Your task to perform on an android device: change text size in settings app Image 0: 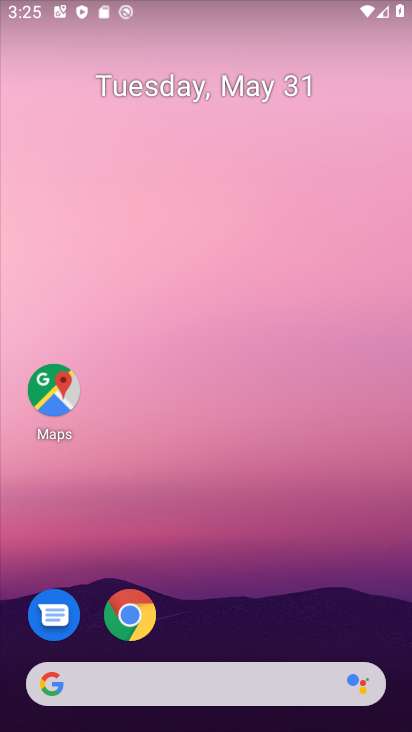
Step 0: drag from (224, 616) to (148, 92)
Your task to perform on an android device: change text size in settings app Image 1: 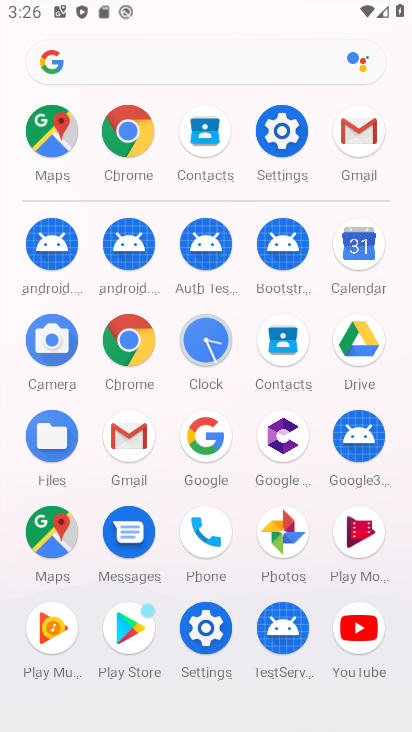
Step 1: click (276, 125)
Your task to perform on an android device: change text size in settings app Image 2: 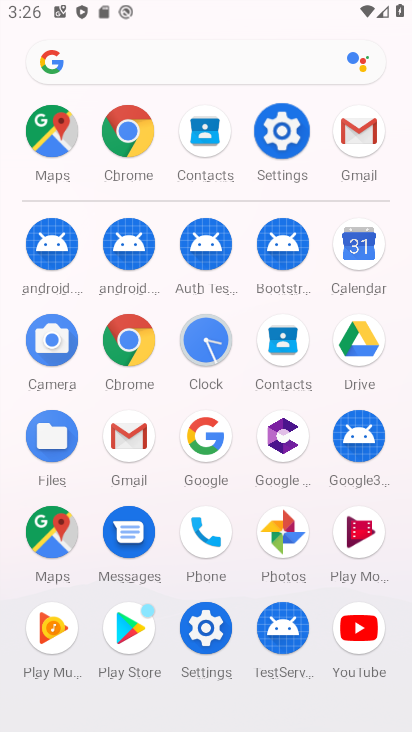
Step 2: click (276, 125)
Your task to perform on an android device: change text size in settings app Image 3: 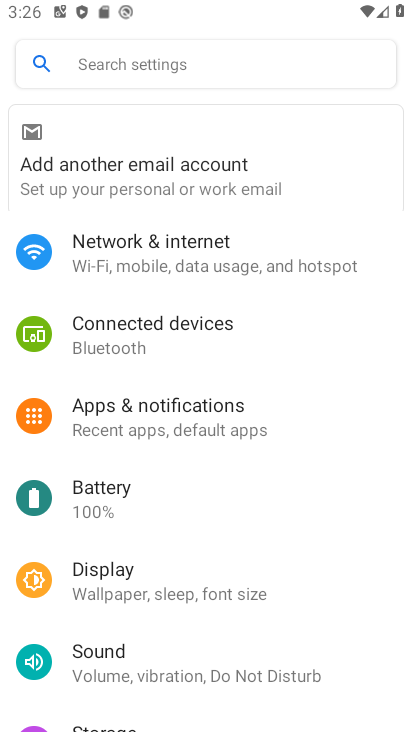
Step 3: click (276, 125)
Your task to perform on an android device: change text size in settings app Image 4: 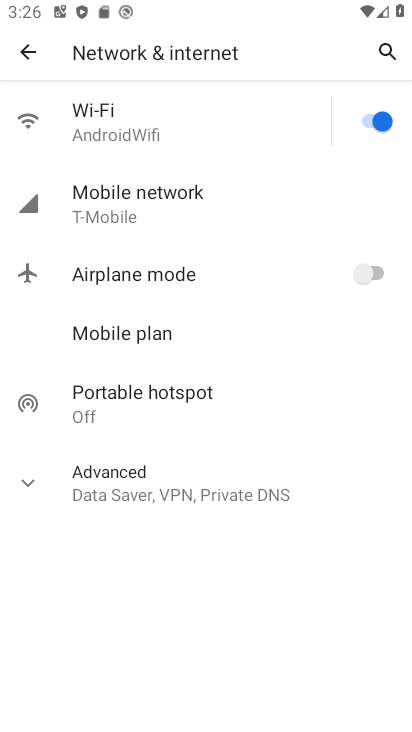
Step 4: click (22, 44)
Your task to perform on an android device: change text size in settings app Image 5: 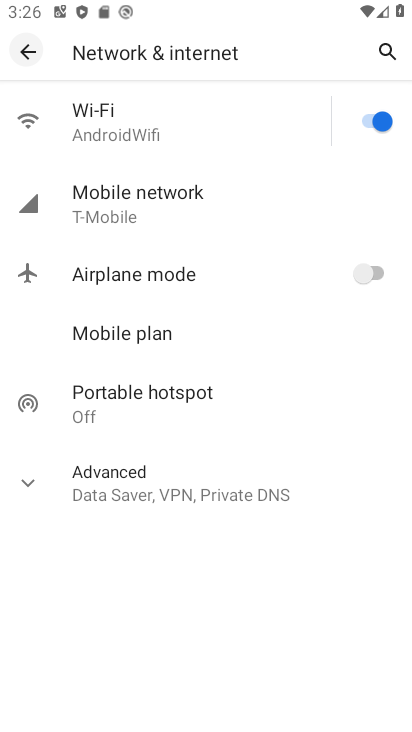
Step 5: click (22, 44)
Your task to perform on an android device: change text size in settings app Image 6: 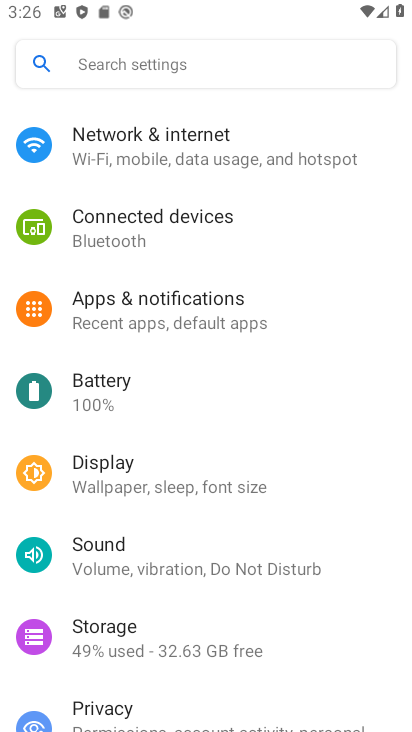
Step 6: click (22, 44)
Your task to perform on an android device: change text size in settings app Image 7: 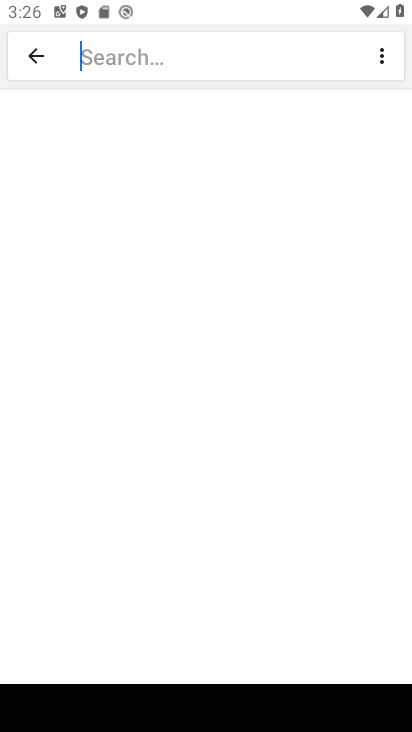
Step 7: click (38, 56)
Your task to perform on an android device: change text size in settings app Image 8: 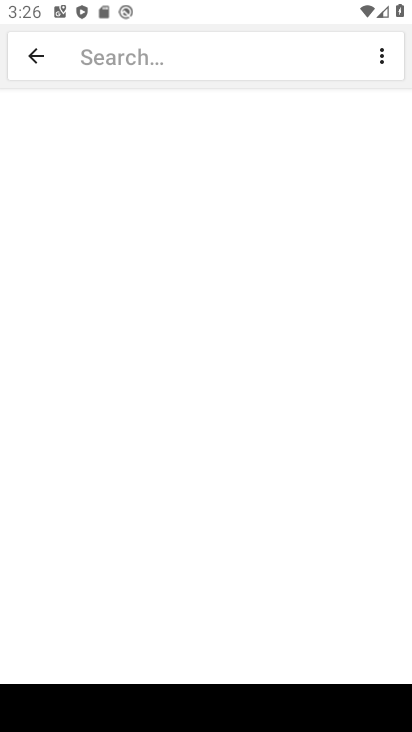
Step 8: click (37, 57)
Your task to perform on an android device: change text size in settings app Image 9: 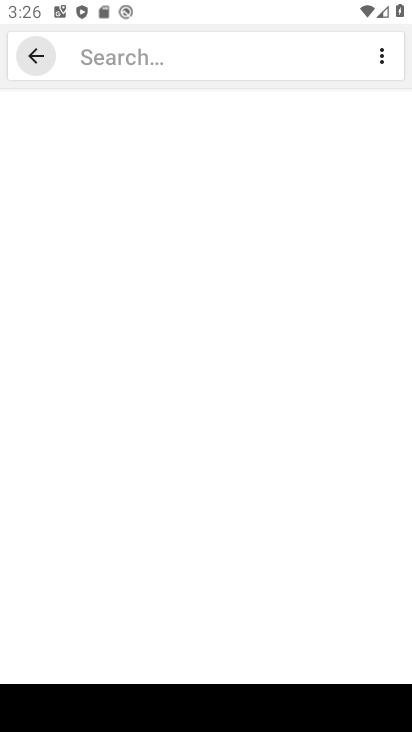
Step 9: click (38, 58)
Your task to perform on an android device: change text size in settings app Image 10: 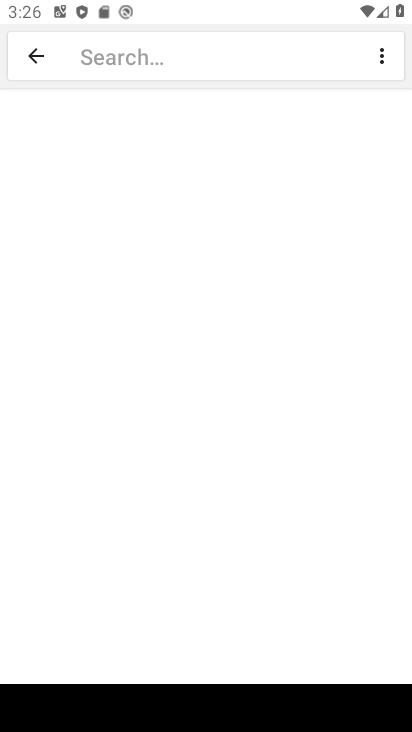
Step 10: click (27, 54)
Your task to perform on an android device: change text size in settings app Image 11: 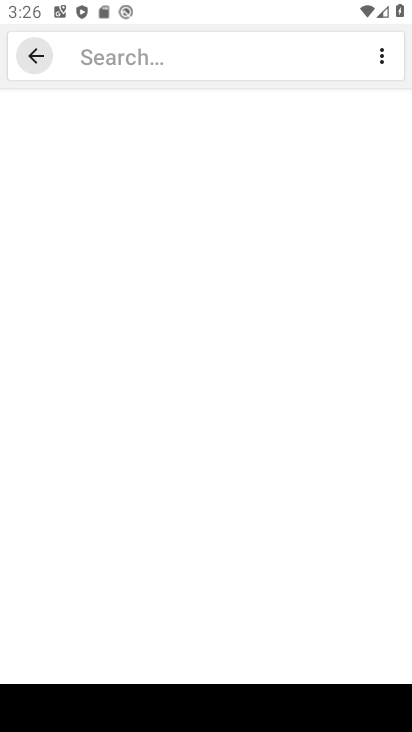
Step 11: click (29, 53)
Your task to perform on an android device: change text size in settings app Image 12: 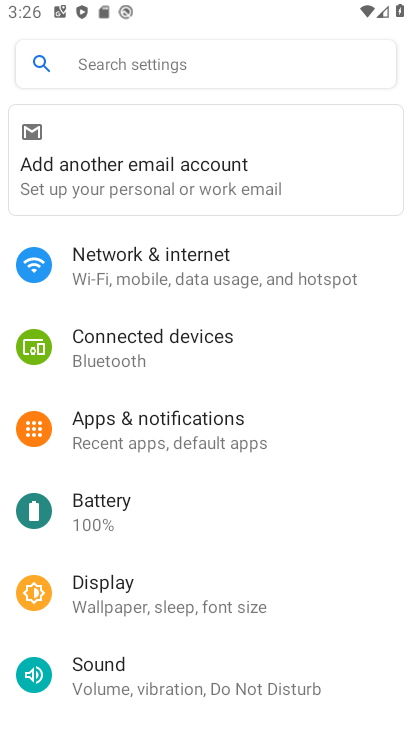
Step 12: drag from (126, 569) to (130, 288)
Your task to perform on an android device: change text size in settings app Image 13: 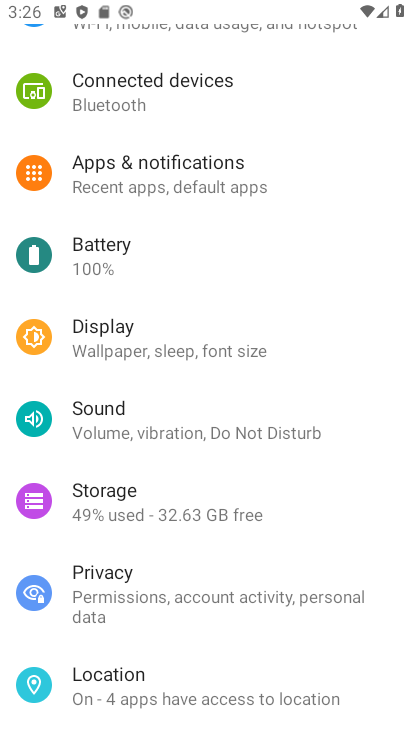
Step 13: click (118, 337)
Your task to perform on an android device: change text size in settings app Image 14: 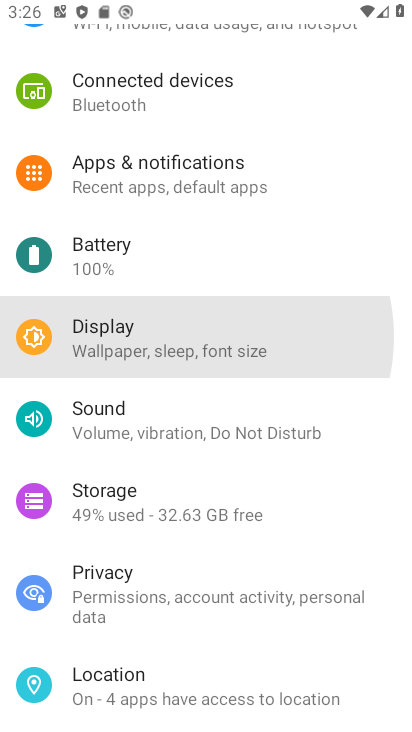
Step 14: click (118, 337)
Your task to perform on an android device: change text size in settings app Image 15: 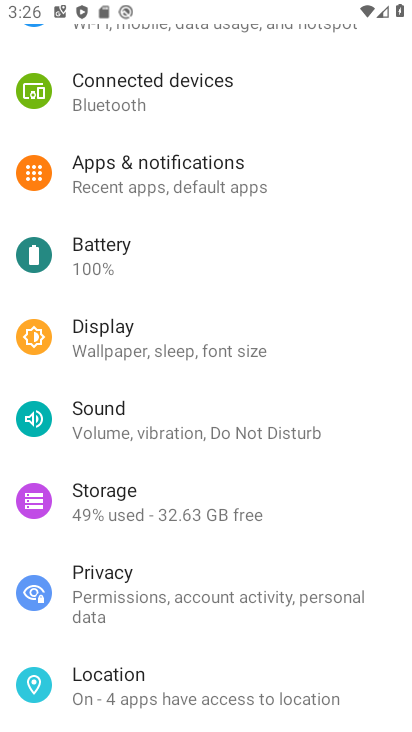
Step 15: click (118, 337)
Your task to perform on an android device: change text size in settings app Image 16: 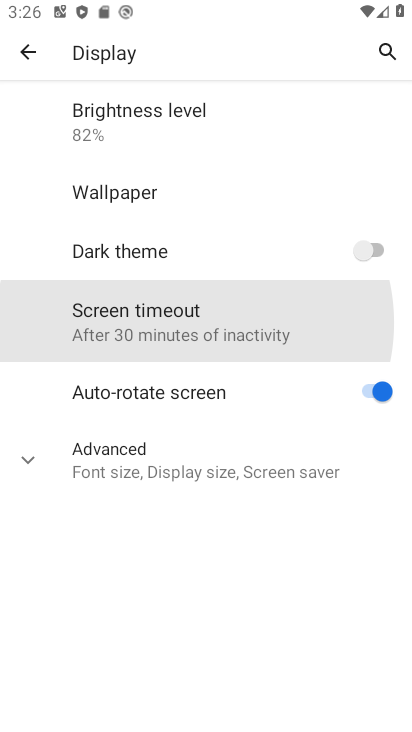
Step 16: click (118, 337)
Your task to perform on an android device: change text size in settings app Image 17: 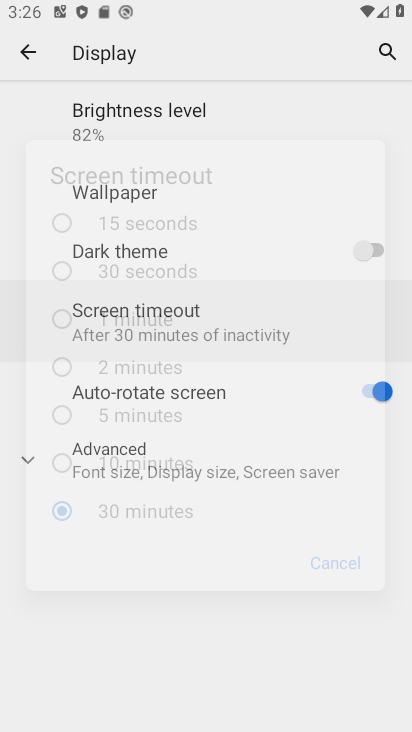
Step 17: click (118, 337)
Your task to perform on an android device: change text size in settings app Image 18: 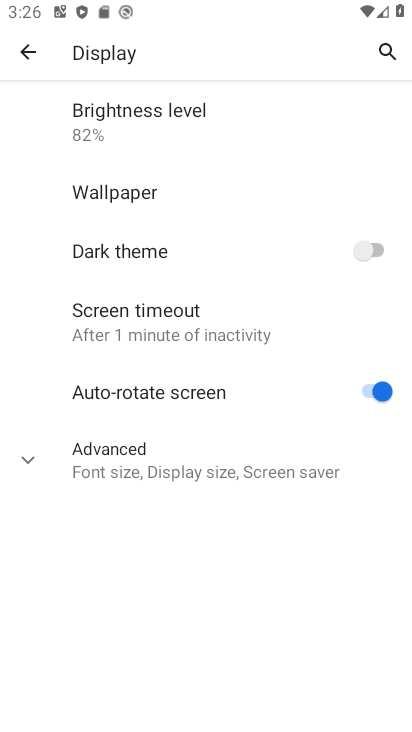
Step 18: click (26, 49)
Your task to perform on an android device: change text size in settings app Image 19: 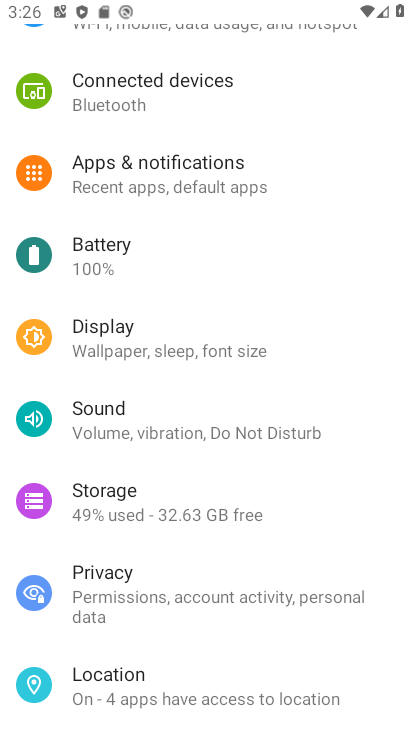
Step 19: click (92, 349)
Your task to perform on an android device: change text size in settings app Image 20: 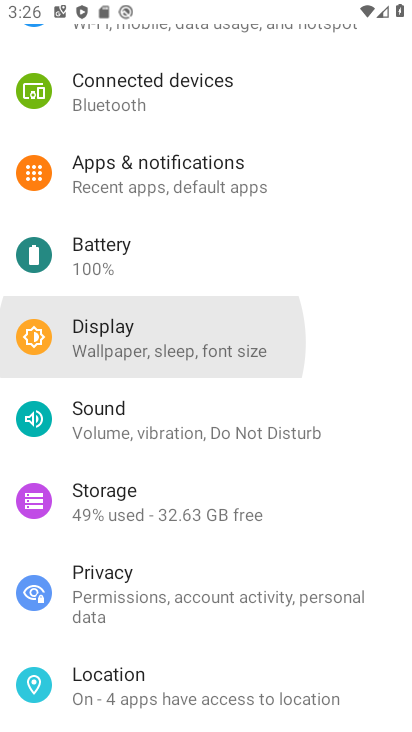
Step 20: click (97, 345)
Your task to perform on an android device: change text size in settings app Image 21: 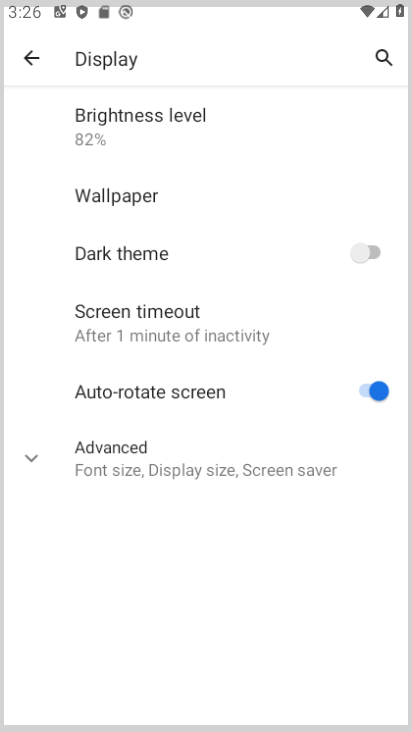
Step 21: click (93, 345)
Your task to perform on an android device: change text size in settings app Image 22: 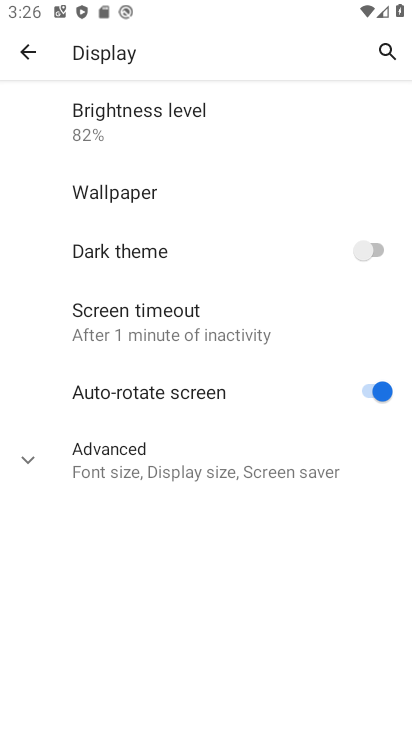
Step 22: click (93, 345)
Your task to perform on an android device: change text size in settings app Image 23: 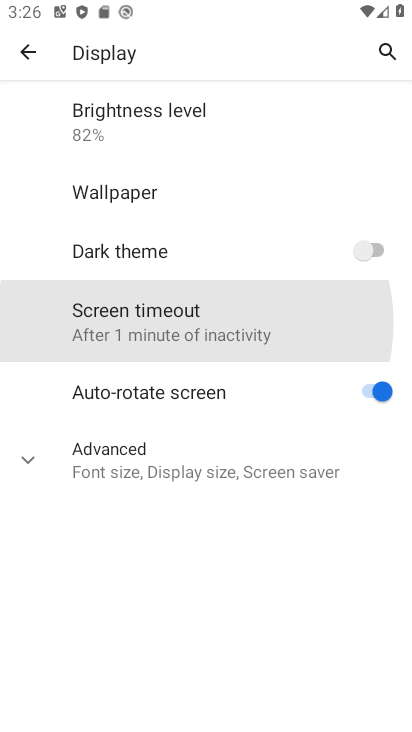
Step 23: click (92, 345)
Your task to perform on an android device: change text size in settings app Image 24: 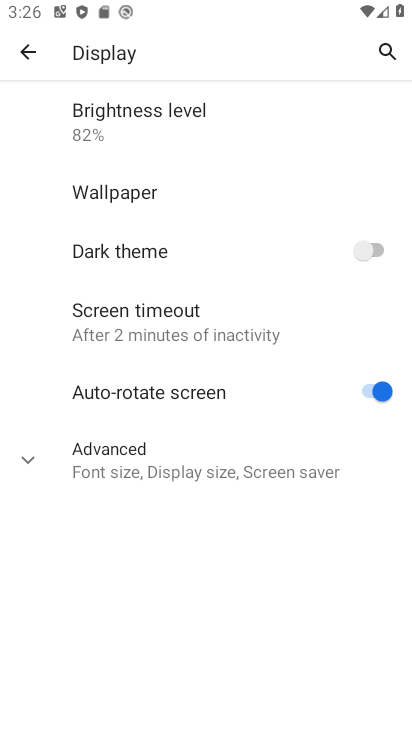
Step 24: click (217, 565)
Your task to perform on an android device: change text size in settings app Image 25: 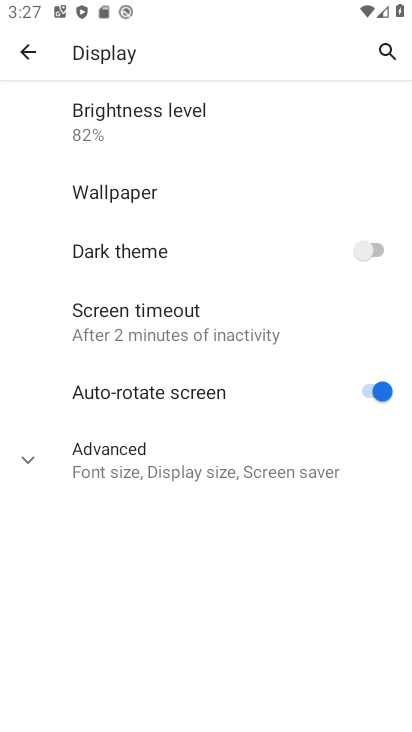
Step 25: task complete